Your task to perform on an android device: turn off data saver in the chrome app Image 0: 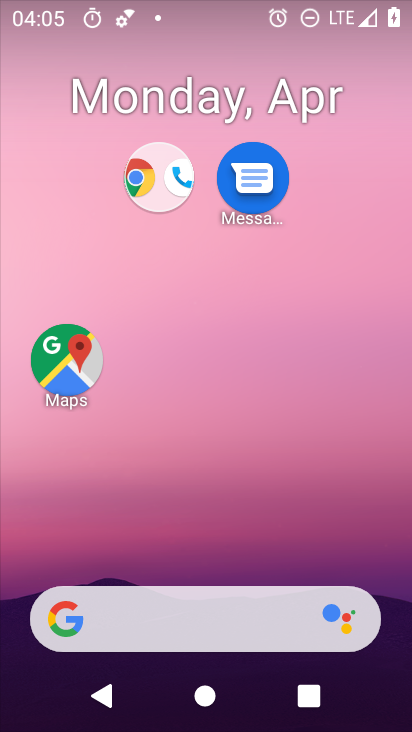
Step 0: click (286, 4)
Your task to perform on an android device: turn off data saver in the chrome app Image 1: 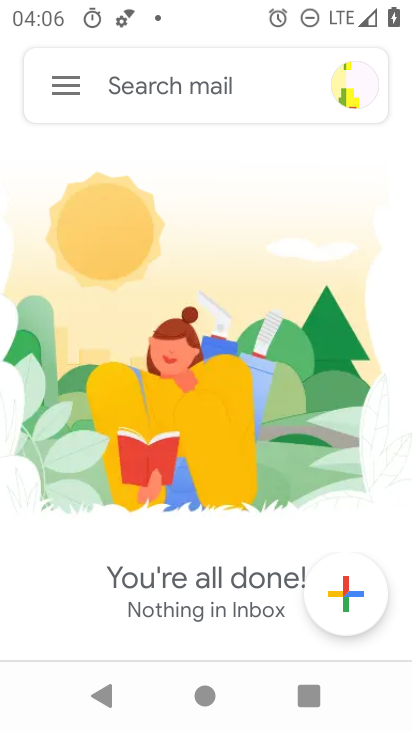
Step 1: press home button
Your task to perform on an android device: turn off data saver in the chrome app Image 2: 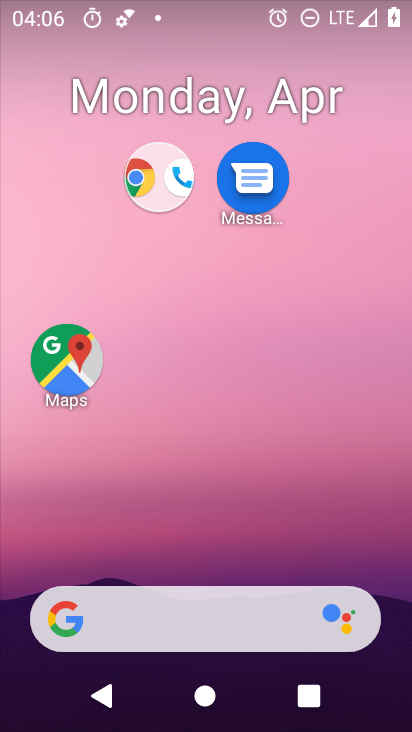
Step 2: drag from (317, 572) to (319, 0)
Your task to perform on an android device: turn off data saver in the chrome app Image 3: 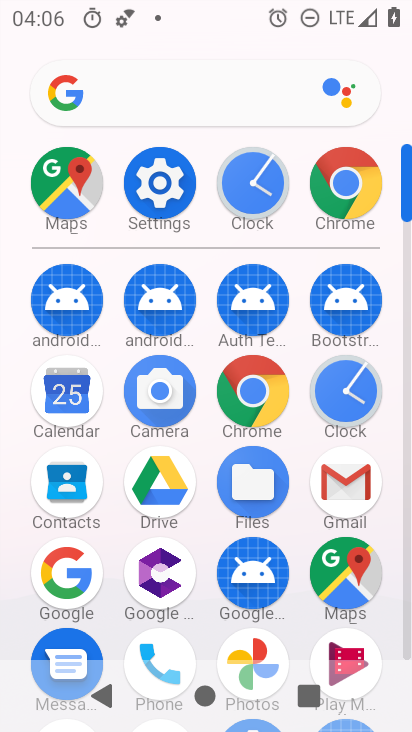
Step 3: click (243, 417)
Your task to perform on an android device: turn off data saver in the chrome app Image 4: 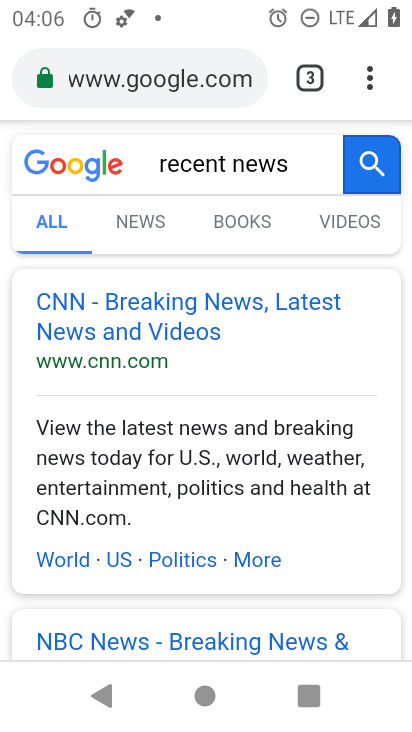
Step 4: click (375, 68)
Your task to perform on an android device: turn off data saver in the chrome app Image 5: 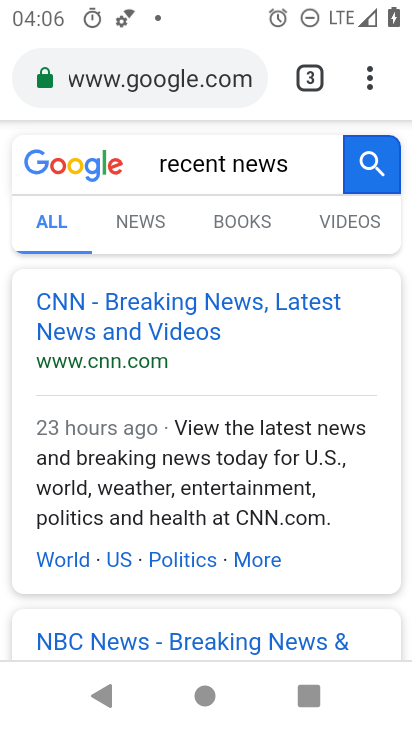
Step 5: drag from (375, 68) to (157, 555)
Your task to perform on an android device: turn off data saver in the chrome app Image 6: 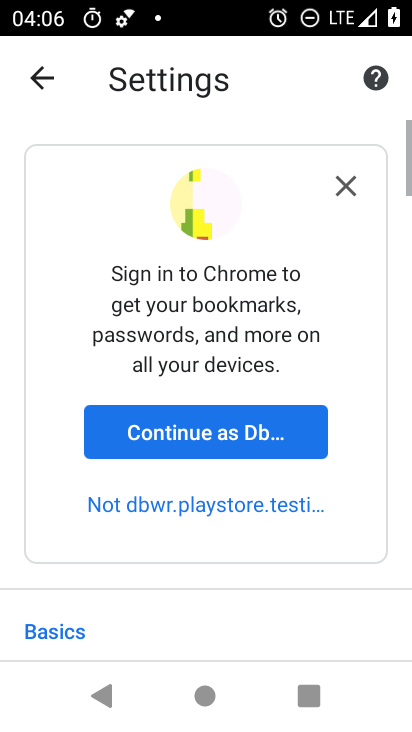
Step 6: drag from (212, 595) to (225, 62)
Your task to perform on an android device: turn off data saver in the chrome app Image 7: 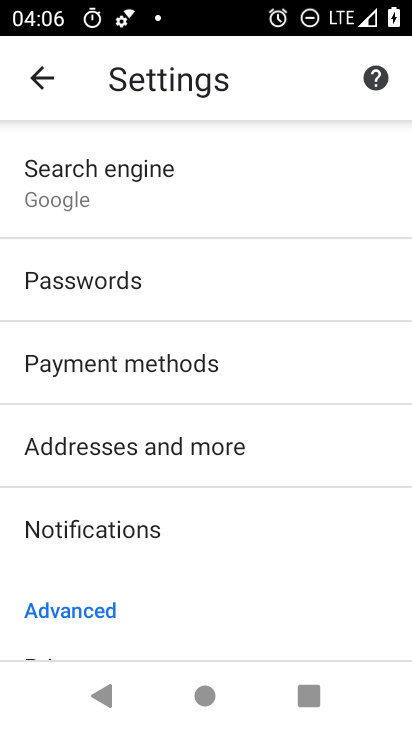
Step 7: drag from (236, 461) to (272, 106)
Your task to perform on an android device: turn off data saver in the chrome app Image 8: 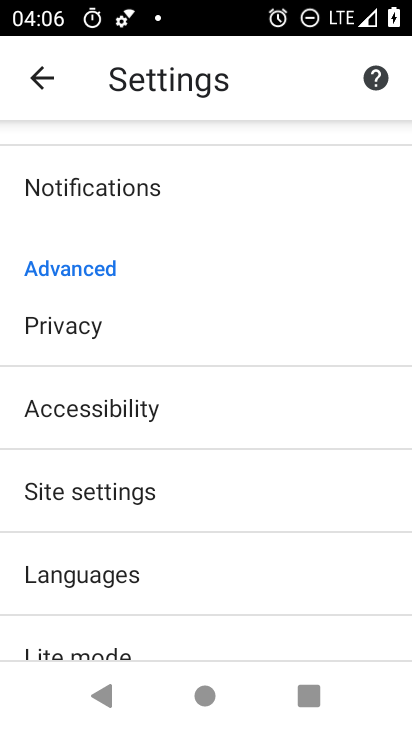
Step 8: click (149, 509)
Your task to perform on an android device: turn off data saver in the chrome app Image 9: 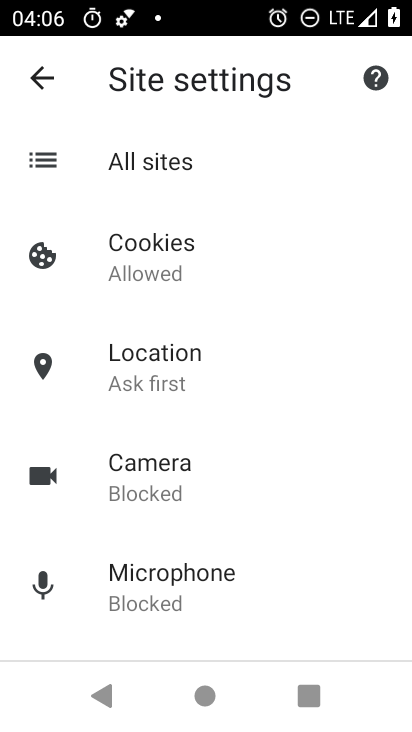
Step 9: press back button
Your task to perform on an android device: turn off data saver in the chrome app Image 10: 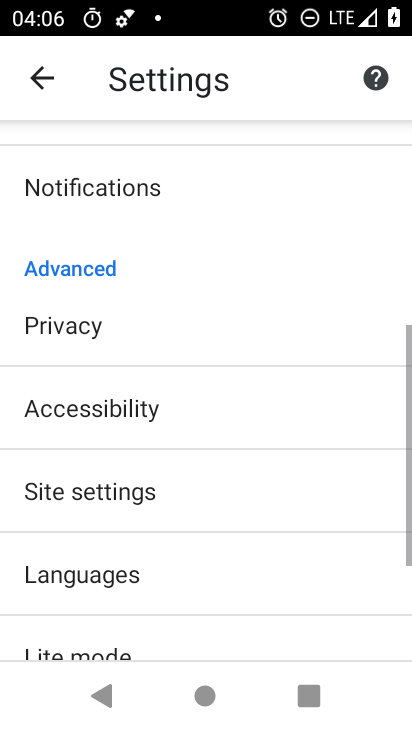
Step 10: drag from (231, 640) to (236, 183)
Your task to perform on an android device: turn off data saver in the chrome app Image 11: 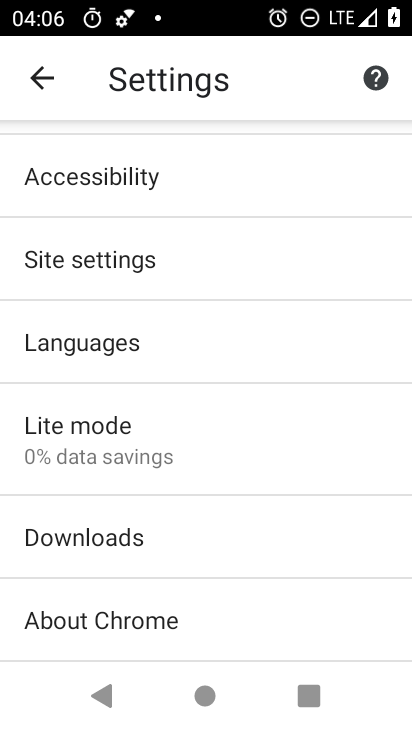
Step 11: click (234, 451)
Your task to perform on an android device: turn off data saver in the chrome app Image 12: 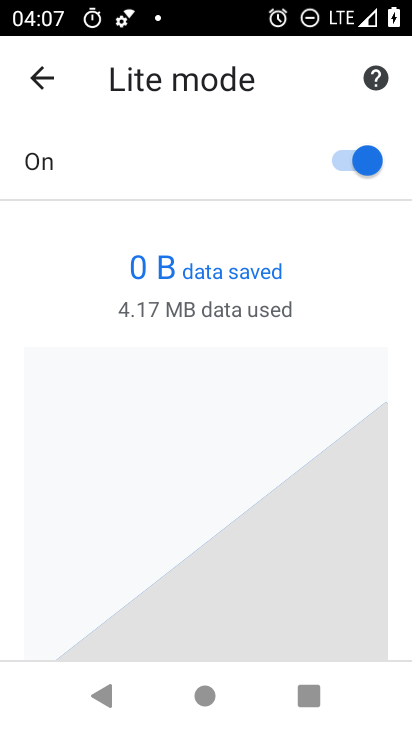
Step 12: click (346, 162)
Your task to perform on an android device: turn off data saver in the chrome app Image 13: 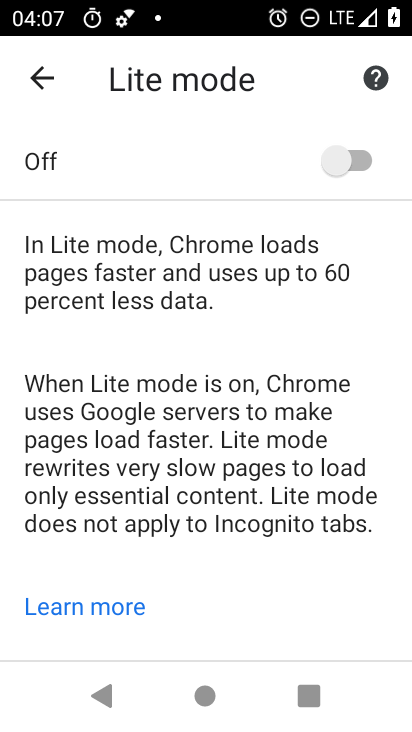
Step 13: task complete